Your task to perform on an android device: toggle notification dots Image 0: 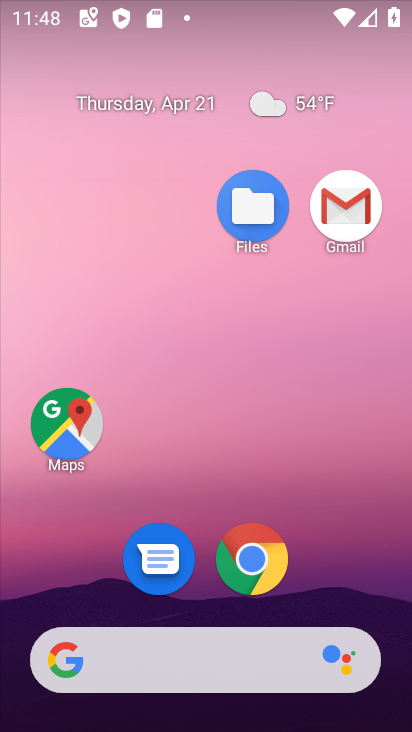
Step 0: drag from (266, 633) to (244, 2)
Your task to perform on an android device: toggle notification dots Image 1: 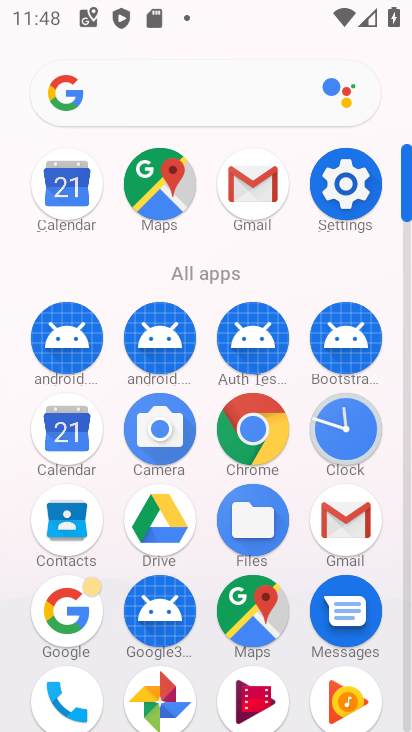
Step 1: click (334, 186)
Your task to perform on an android device: toggle notification dots Image 2: 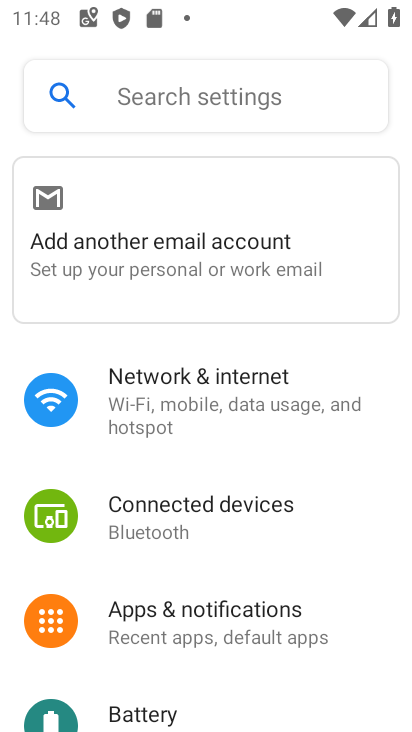
Step 2: click (228, 608)
Your task to perform on an android device: toggle notification dots Image 3: 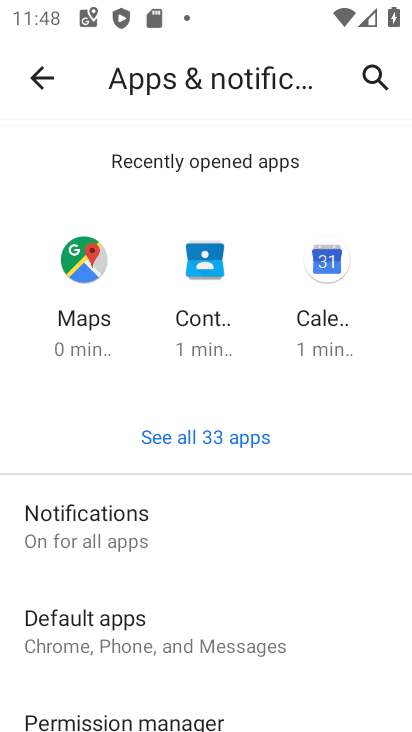
Step 3: click (159, 523)
Your task to perform on an android device: toggle notification dots Image 4: 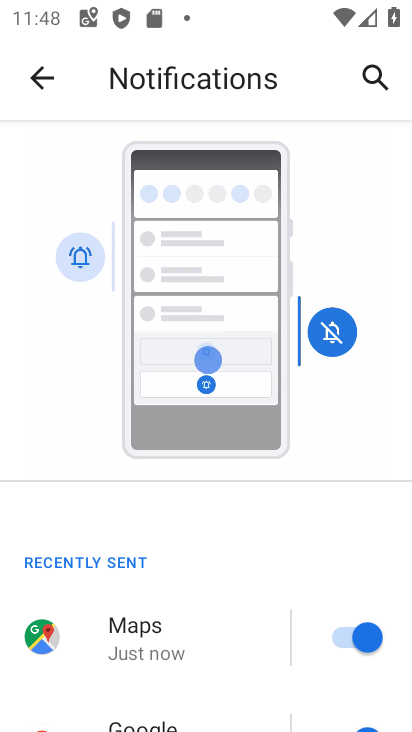
Step 4: drag from (343, 534) to (393, 164)
Your task to perform on an android device: toggle notification dots Image 5: 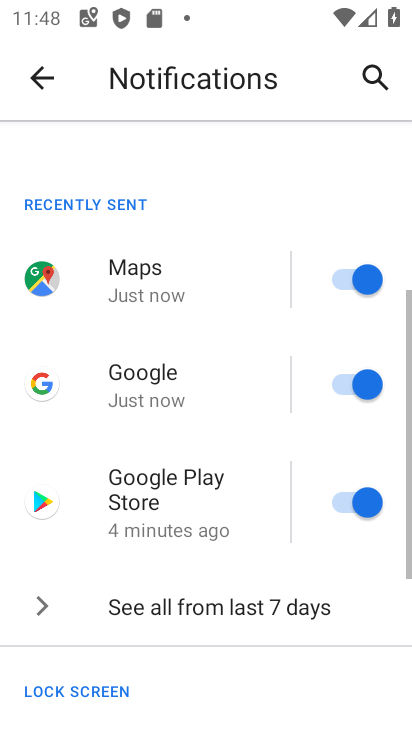
Step 5: drag from (276, 603) to (400, 676)
Your task to perform on an android device: toggle notification dots Image 6: 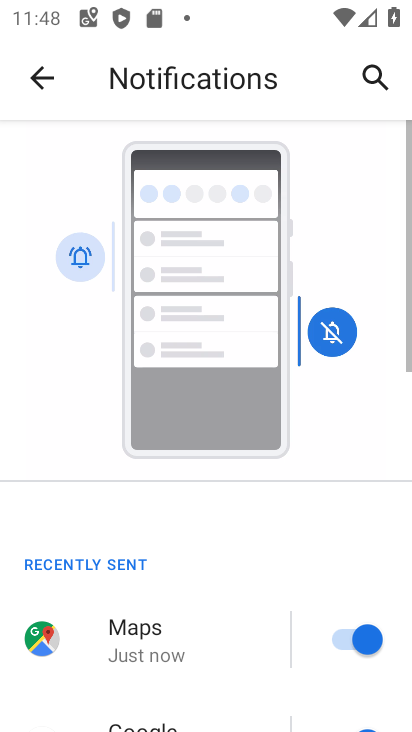
Step 6: drag from (275, 693) to (380, 587)
Your task to perform on an android device: toggle notification dots Image 7: 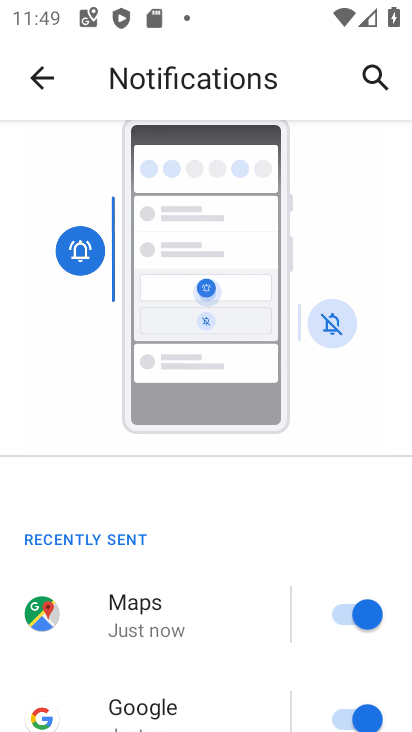
Step 7: drag from (231, 565) to (405, 519)
Your task to perform on an android device: toggle notification dots Image 8: 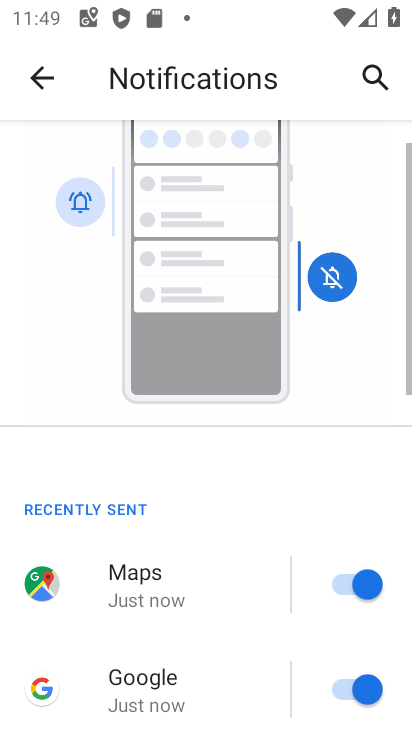
Step 8: drag from (270, 683) to (405, 723)
Your task to perform on an android device: toggle notification dots Image 9: 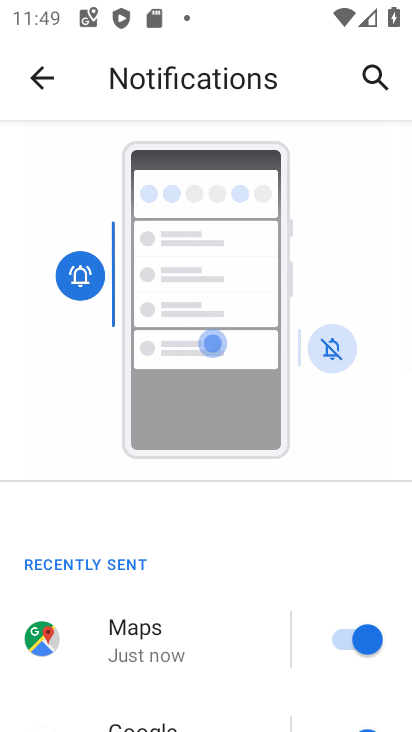
Step 9: drag from (348, 703) to (169, 714)
Your task to perform on an android device: toggle notification dots Image 10: 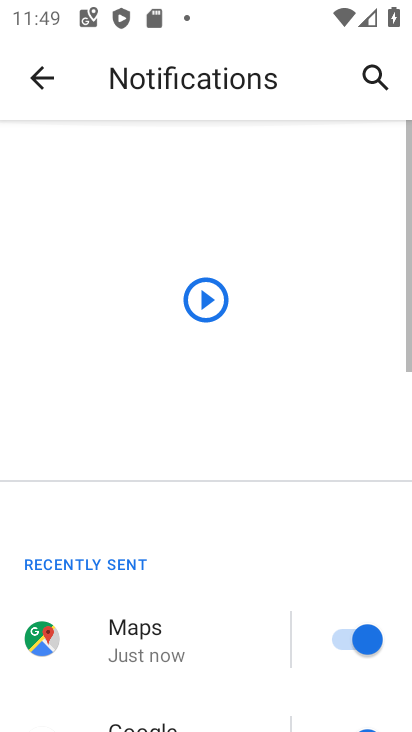
Step 10: click (161, 696)
Your task to perform on an android device: toggle notification dots Image 11: 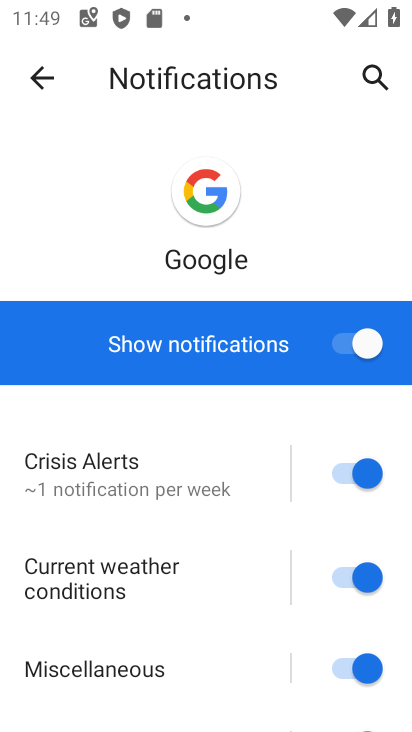
Step 11: drag from (194, 351) to (311, 17)
Your task to perform on an android device: toggle notification dots Image 12: 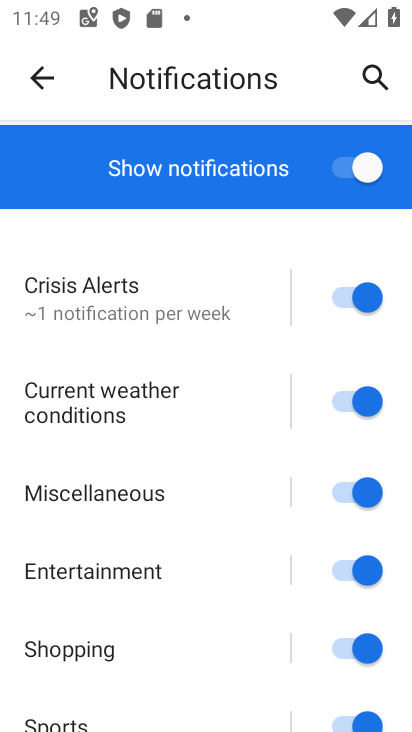
Step 12: drag from (270, 259) to (269, 35)
Your task to perform on an android device: toggle notification dots Image 13: 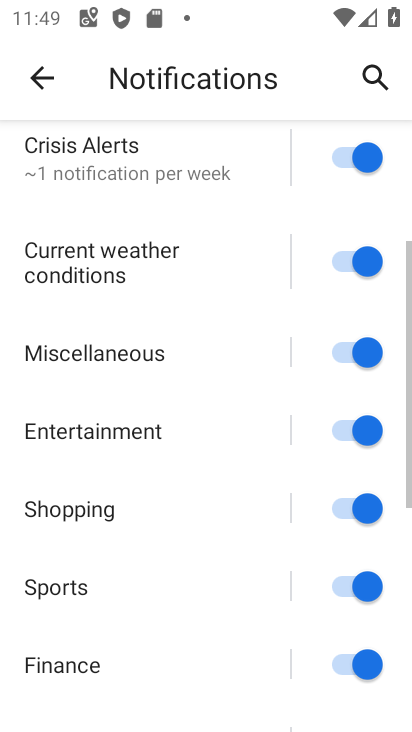
Step 13: drag from (226, 252) to (223, 0)
Your task to perform on an android device: toggle notification dots Image 14: 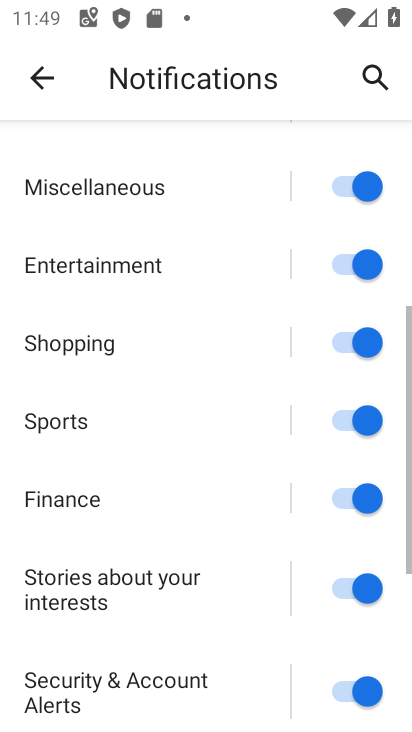
Step 14: drag from (238, 479) to (240, 13)
Your task to perform on an android device: toggle notification dots Image 15: 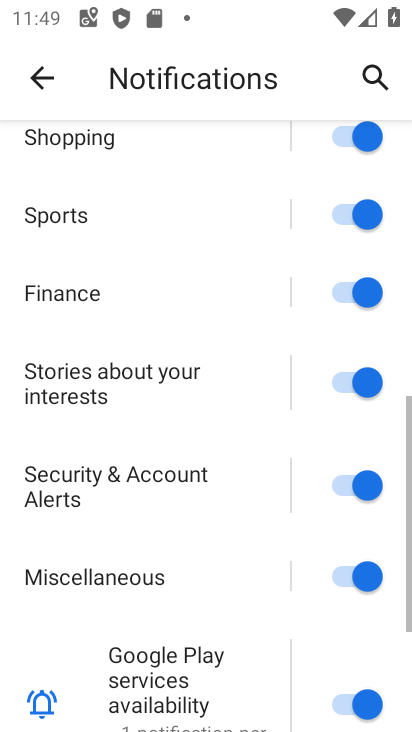
Step 15: drag from (249, 539) to (262, 4)
Your task to perform on an android device: toggle notification dots Image 16: 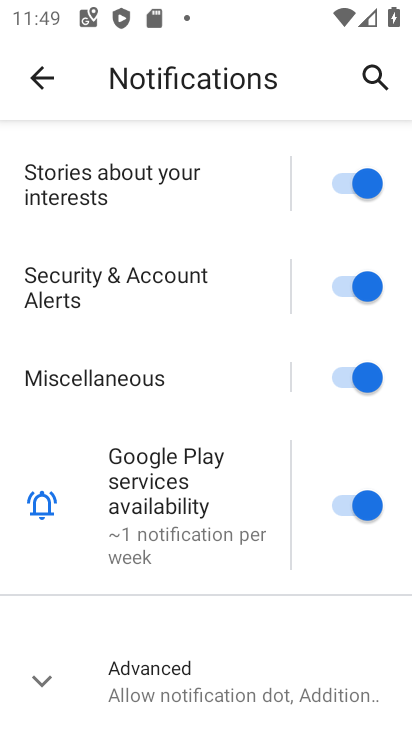
Step 16: click (25, 680)
Your task to perform on an android device: toggle notification dots Image 17: 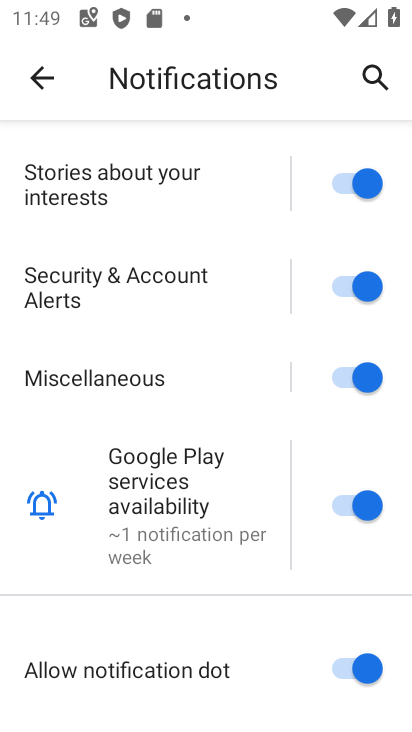
Step 17: click (347, 665)
Your task to perform on an android device: toggle notification dots Image 18: 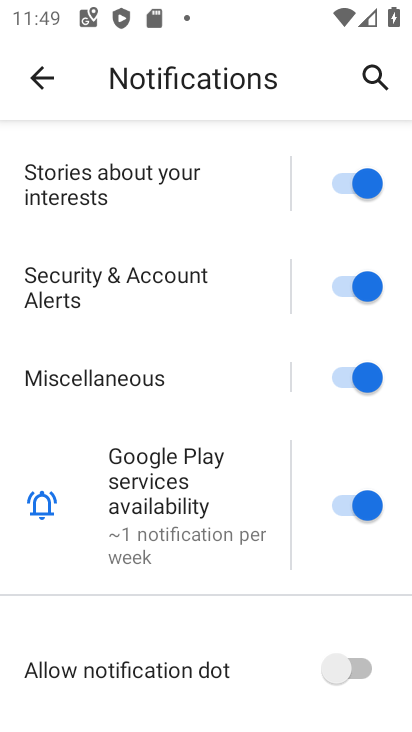
Step 18: task complete